Your task to perform on an android device: Go to internet settings Image 0: 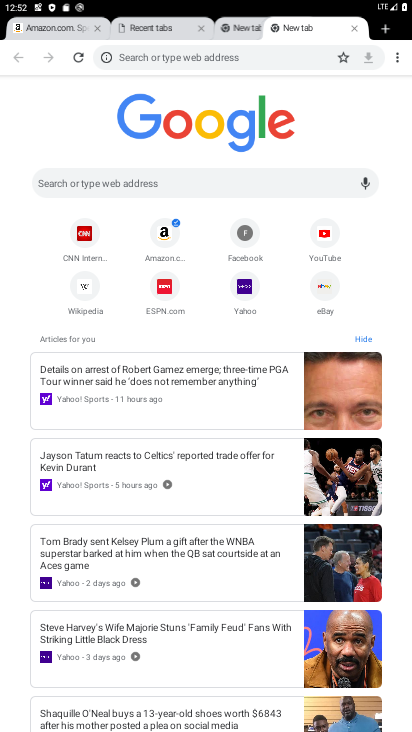
Step 0: press home button
Your task to perform on an android device: Go to internet settings Image 1: 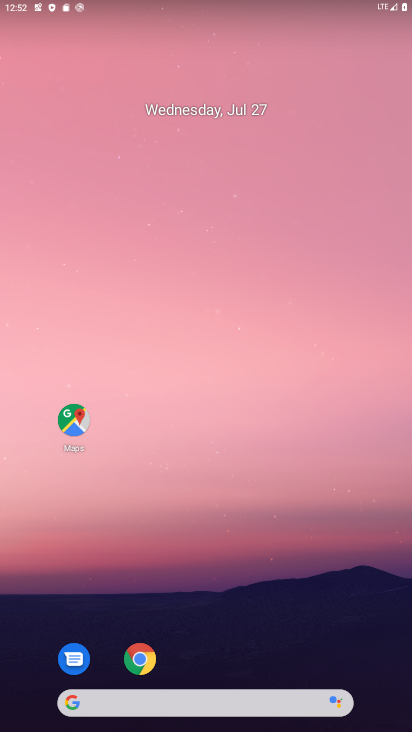
Step 1: drag from (252, 653) to (236, 87)
Your task to perform on an android device: Go to internet settings Image 2: 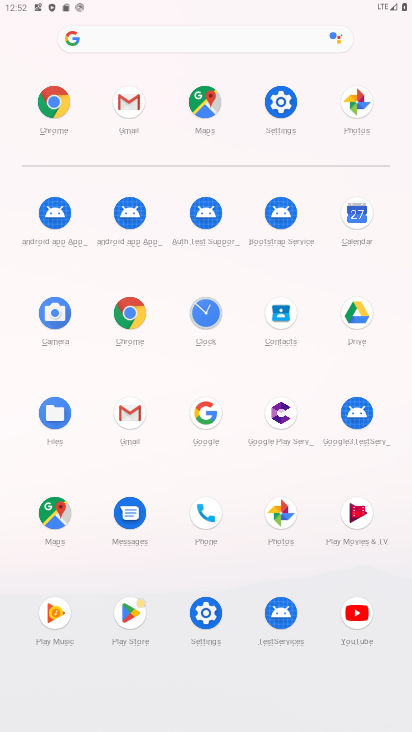
Step 2: click (213, 611)
Your task to perform on an android device: Go to internet settings Image 3: 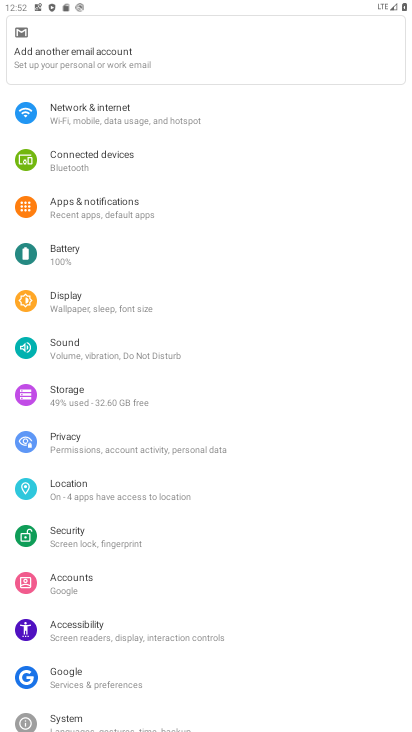
Step 3: click (123, 113)
Your task to perform on an android device: Go to internet settings Image 4: 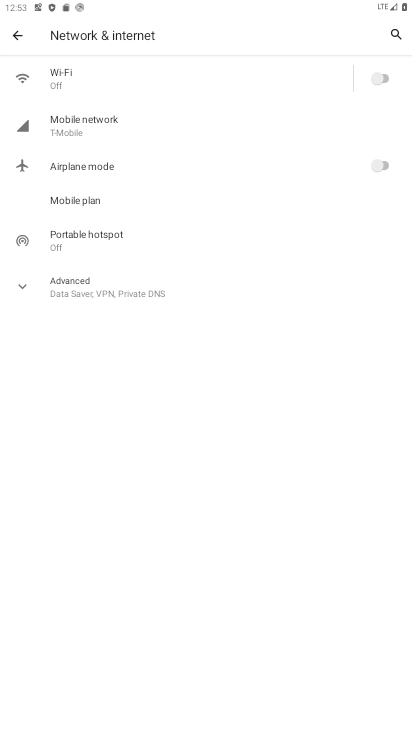
Step 4: click (147, 136)
Your task to perform on an android device: Go to internet settings Image 5: 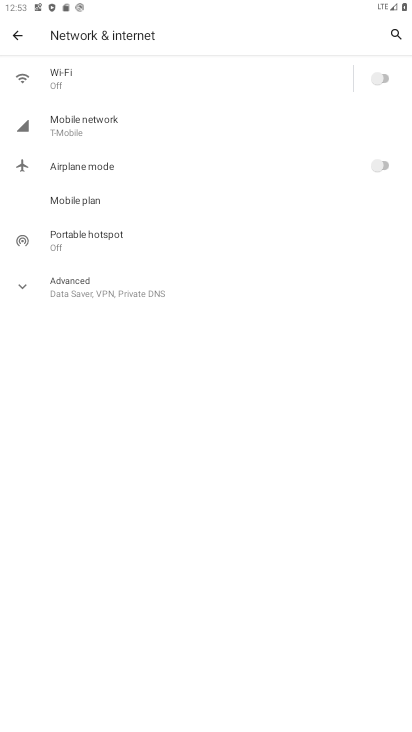
Step 5: task complete